Your task to perform on an android device: Turn on the flashlight Image 0: 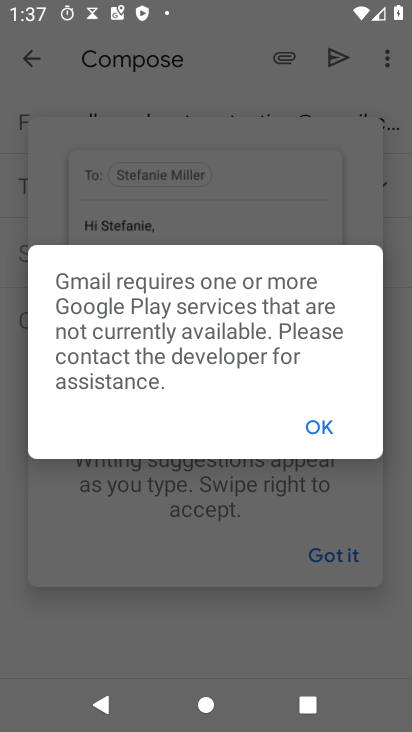
Step 0: press home button
Your task to perform on an android device: Turn on the flashlight Image 1: 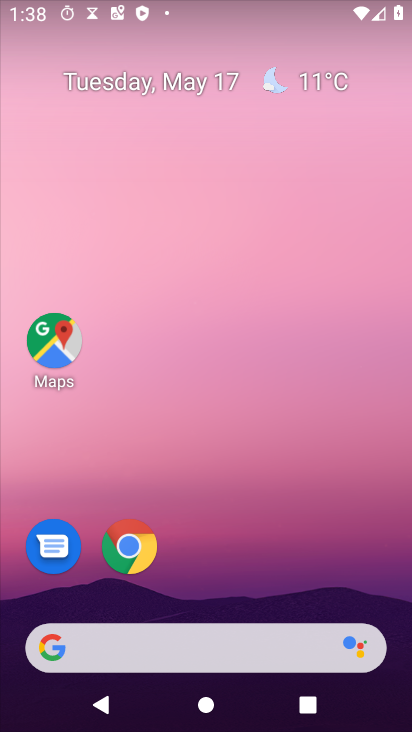
Step 1: task complete